Your task to perform on an android device: Go to Yahoo.com Image 0: 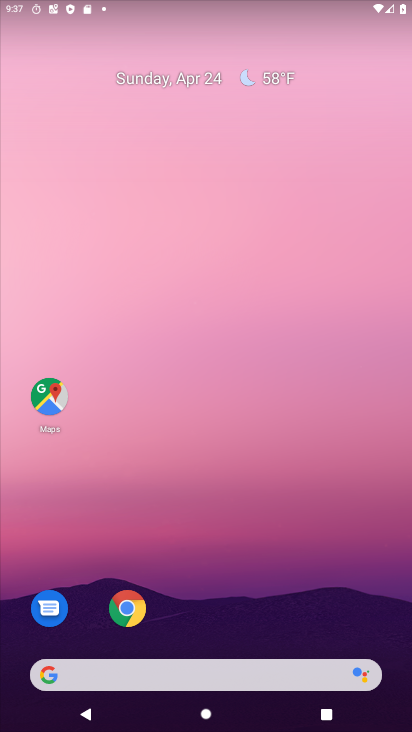
Step 0: drag from (304, 615) to (308, 134)
Your task to perform on an android device: Go to Yahoo.com Image 1: 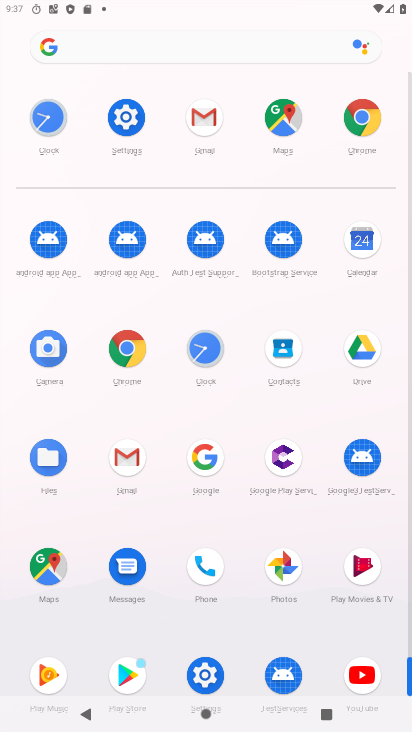
Step 1: click (361, 116)
Your task to perform on an android device: Go to Yahoo.com Image 2: 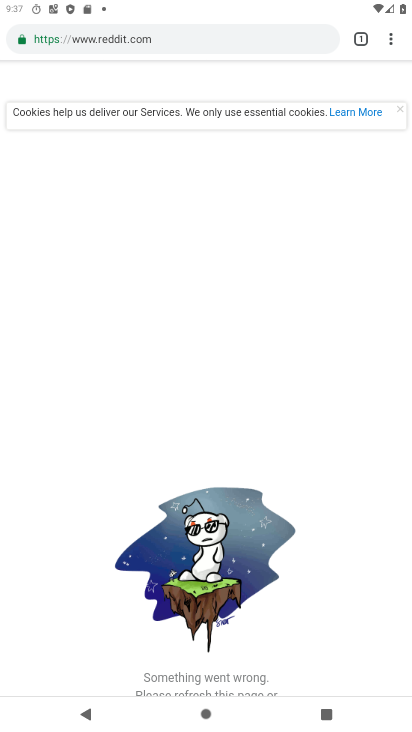
Step 2: click (177, 35)
Your task to perform on an android device: Go to Yahoo.com Image 3: 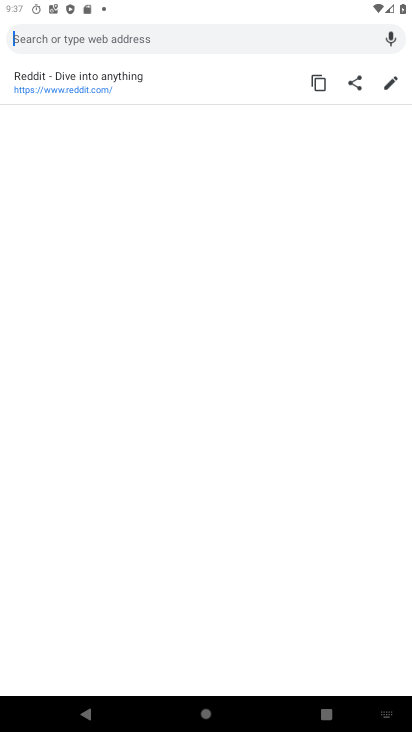
Step 3: type "yahoo.com"
Your task to perform on an android device: Go to Yahoo.com Image 4: 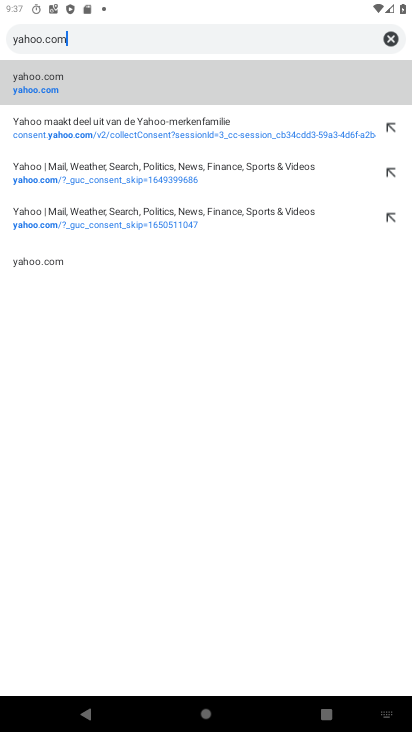
Step 4: click (110, 77)
Your task to perform on an android device: Go to Yahoo.com Image 5: 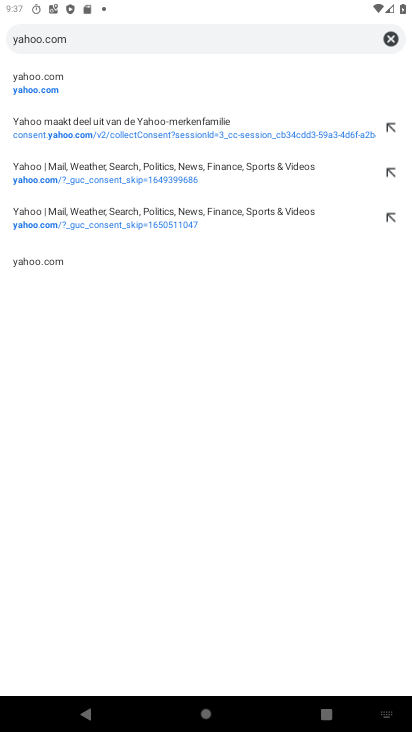
Step 5: click (34, 93)
Your task to perform on an android device: Go to Yahoo.com Image 6: 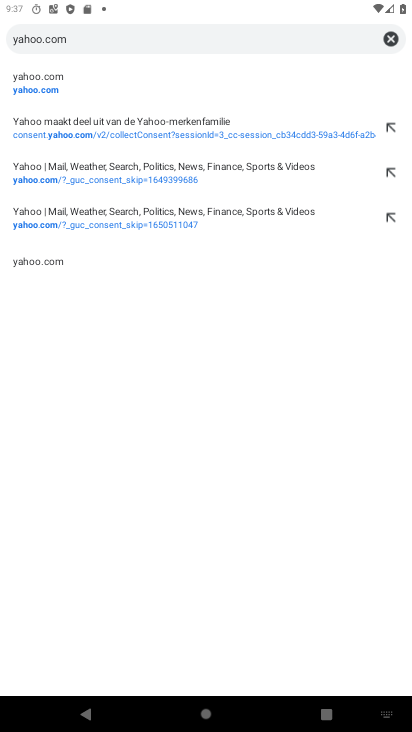
Step 6: click (26, 85)
Your task to perform on an android device: Go to Yahoo.com Image 7: 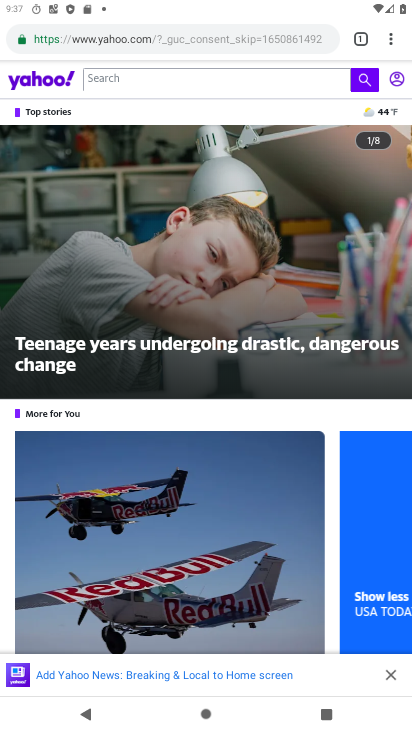
Step 7: task complete